Your task to perform on an android device: open app "Firefox Browser" (install if not already installed) and enter user name: "hashed@outlook.com" and password: "congestive" Image 0: 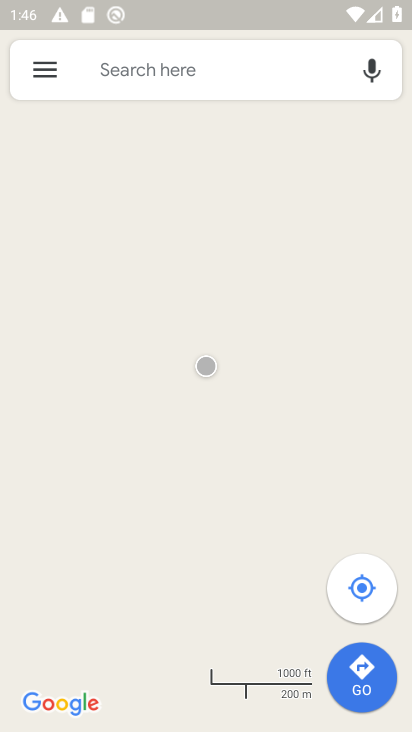
Step 0: press home button
Your task to perform on an android device: open app "Firefox Browser" (install if not already installed) and enter user name: "hashed@outlook.com" and password: "congestive" Image 1: 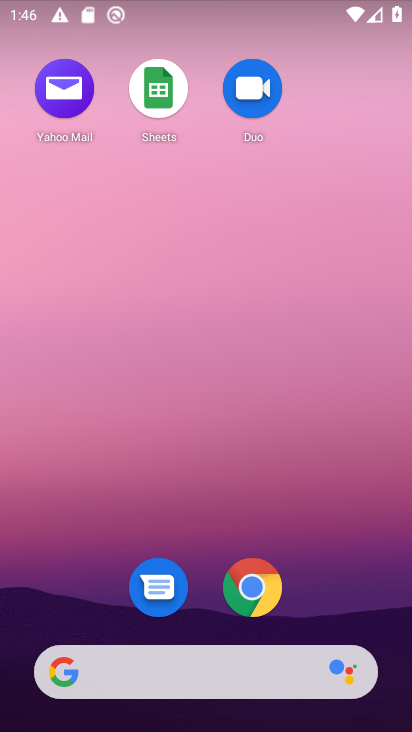
Step 1: press home button
Your task to perform on an android device: open app "Firefox Browser" (install if not already installed) and enter user name: "hashed@outlook.com" and password: "congestive" Image 2: 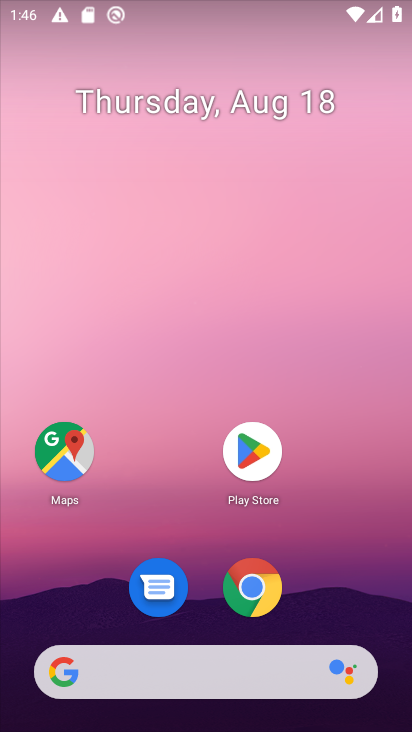
Step 2: click (252, 452)
Your task to perform on an android device: open app "Firefox Browser" (install if not already installed) and enter user name: "hashed@outlook.com" and password: "congestive" Image 3: 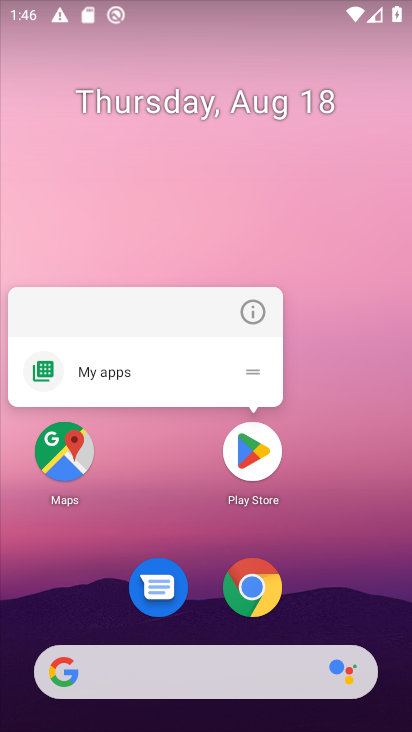
Step 3: click (252, 451)
Your task to perform on an android device: open app "Firefox Browser" (install if not already installed) and enter user name: "hashed@outlook.com" and password: "congestive" Image 4: 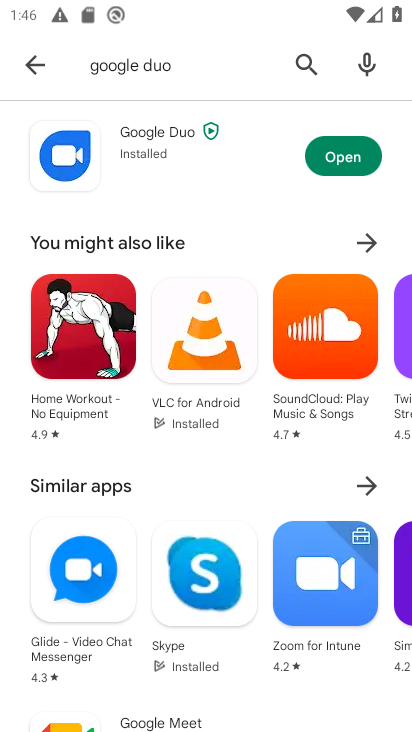
Step 4: click (304, 59)
Your task to perform on an android device: open app "Firefox Browser" (install if not already installed) and enter user name: "hashed@outlook.com" and password: "congestive" Image 5: 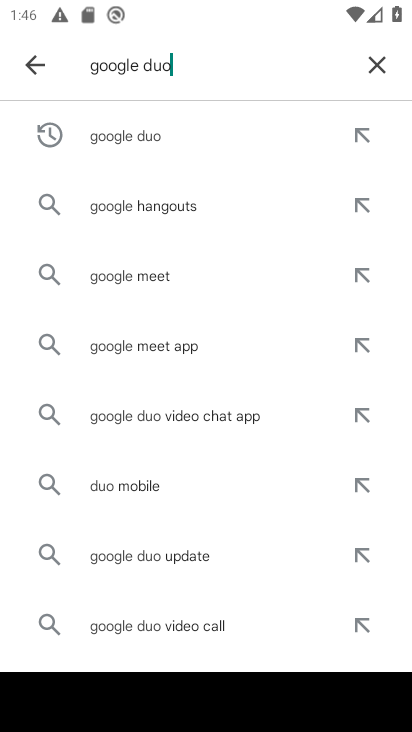
Step 5: click (379, 63)
Your task to perform on an android device: open app "Firefox Browser" (install if not already installed) and enter user name: "hashed@outlook.com" and password: "congestive" Image 6: 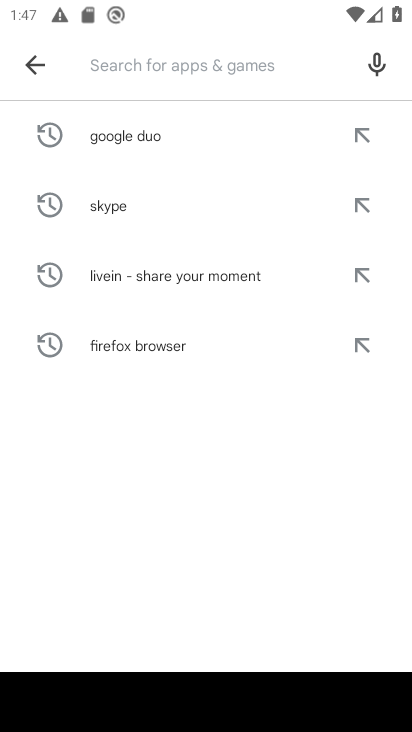
Step 6: type "Firefox Browser"
Your task to perform on an android device: open app "Firefox Browser" (install if not already installed) and enter user name: "hashed@outlook.com" and password: "congestive" Image 7: 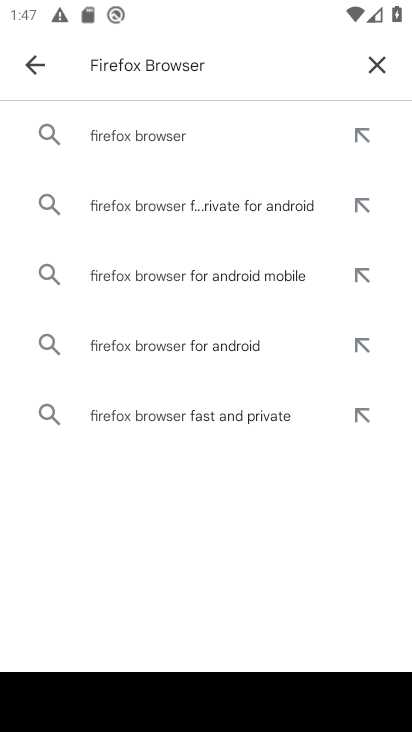
Step 7: click (163, 133)
Your task to perform on an android device: open app "Firefox Browser" (install if not already installed) and enter user name: "hashed@outlook.com" and password: "congestive" Image 8: 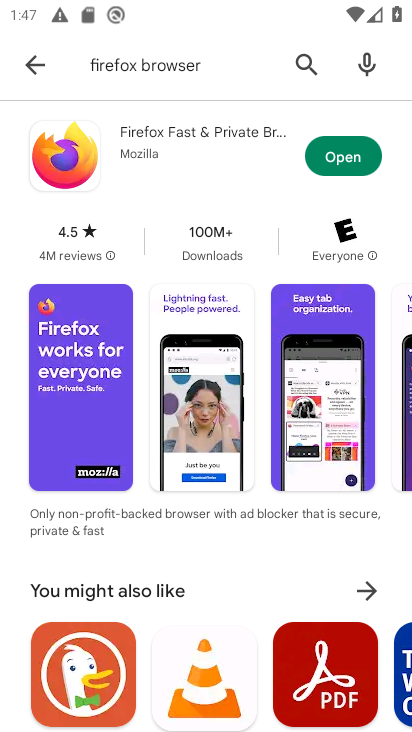
Step 8: click (364, 144)
Your task to perform on an android device: open app "Firefox Browser" (install if not already installed) and enter user name: "hashed@outlook.com" and password: "congestive" Image 9: 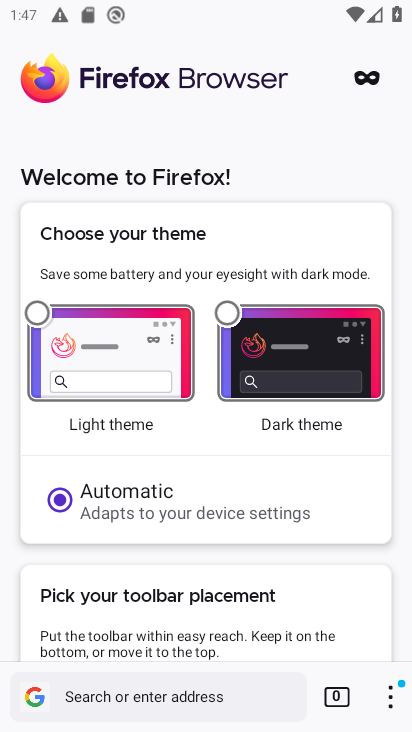
Step 9: task complete